Your task to perform on an android device: Find coffee shops on Maps Image 0: 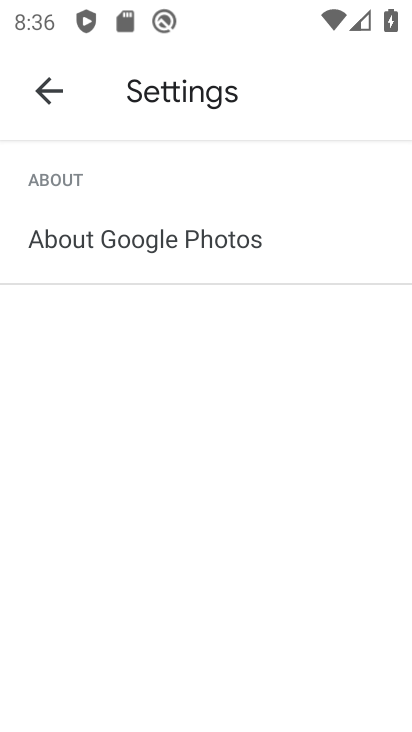
Step 0: press home button
Your task to perform on an android device: Find coffee shops on Maps Image 1: 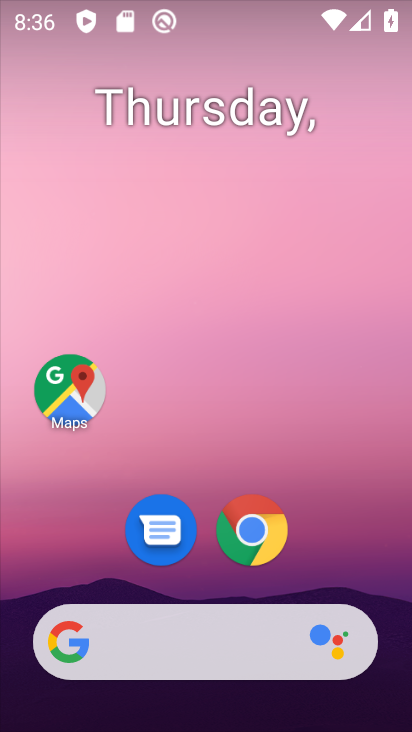
Step 1: drag from (254, 610) to (410, 52)
Your task to perform on an android device: Find coffee shops on Maps Image 2: 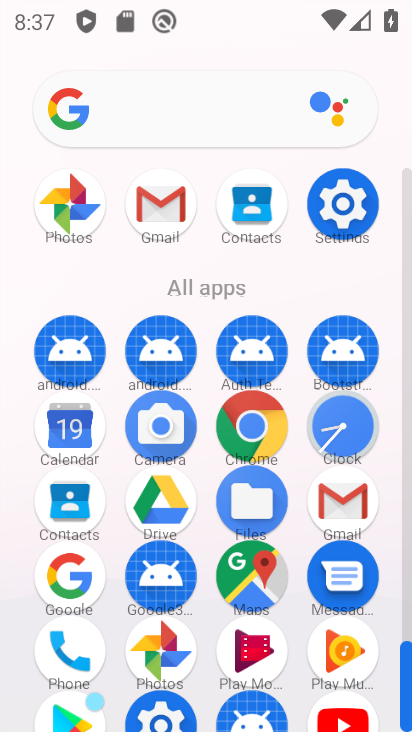
Step 2: click (237, 587)
Your task to perform on an android device: Find coffee shops on Maps Image 3: 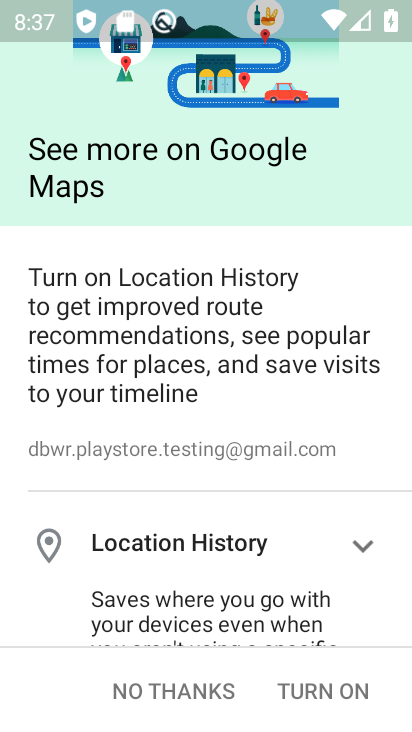
Step 3: click (292, 693)
Your task to perform on an android device: Find coffee shops on Maps Image 4: 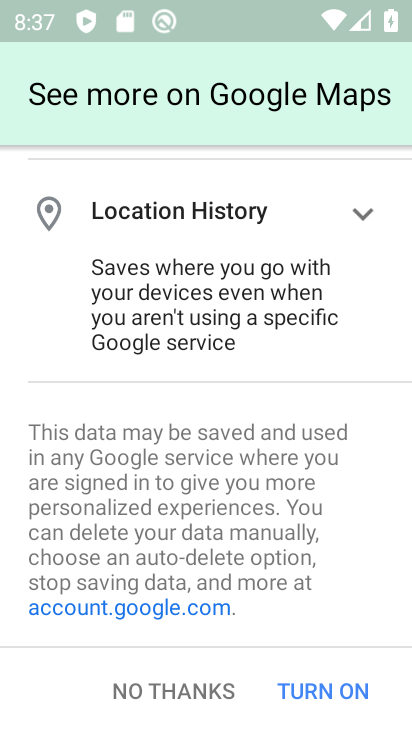
Step 4: click (332, 693)
Your task to perform on an android device: Find coffee shops on Maps Image 5: 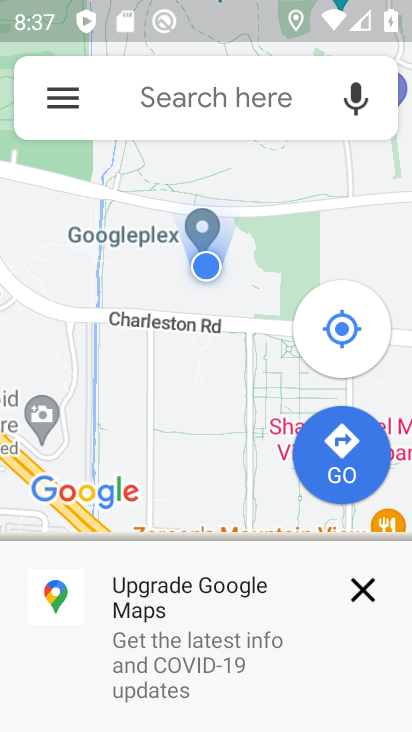
Step 5: click (366, 599)
Your task to perform on an android device: Find coffee shops on Maps Image 6: 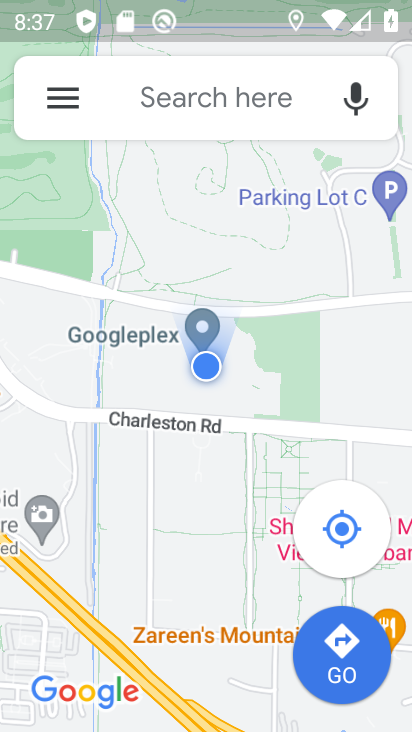
Step 6: click (191, 90)
Your task to perform on an android device: Find coffee shops on Maps Image 7: 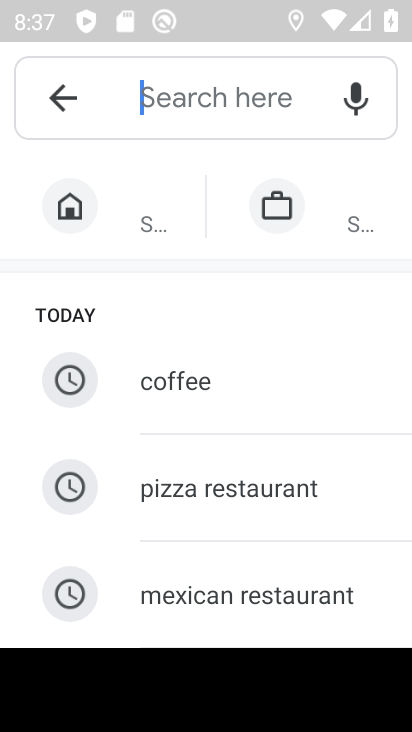
Step 7: type "coffee shops"
Your task to perform on an android device: Find coffee shops on Maps Image 8: 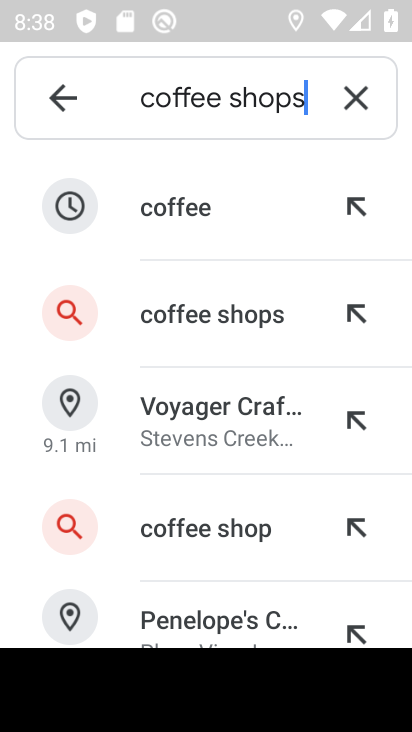
Step 8: click (235, 336)
Your task to perform on an android device: Find coffee shops on Maps Image 9: 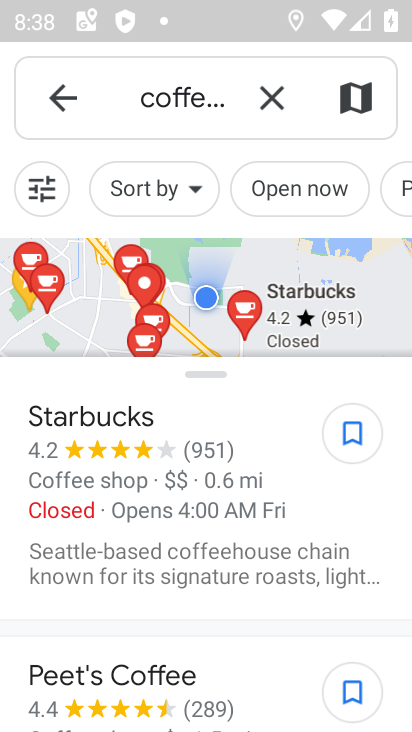
Step 9: task complete